Your task to perform on an android device: turn on sleep mode Image 0: 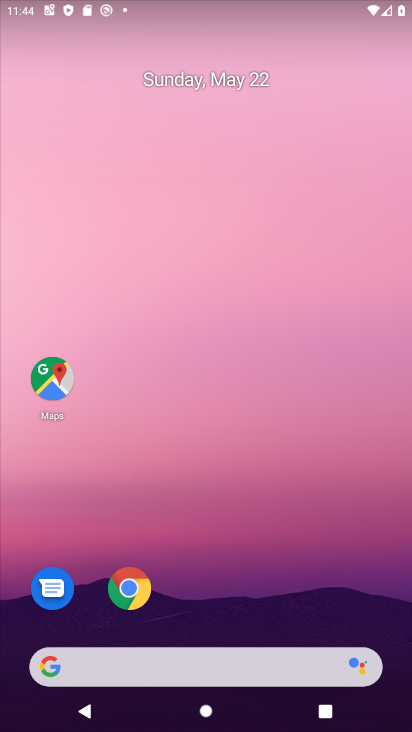
Step 0: drag from (259, 686) to (247, 17)
Your task to perform on an android device: turn on sleep mode Image 1: 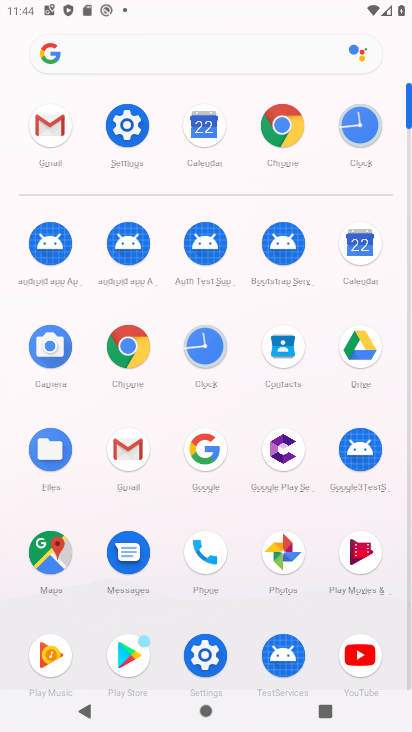
Step 1: click (133, 143)
Your task to perform on an android device: turn on sleep mode Image 2: 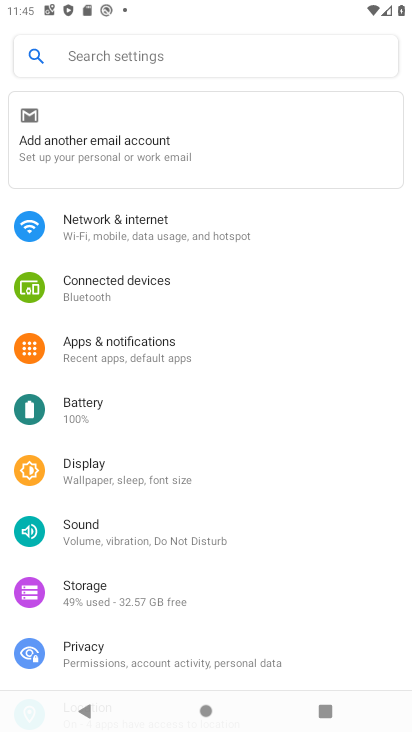
Step 2: click (126, 59)
Your task to perform on an android device: turn on sleep mode Image 3: 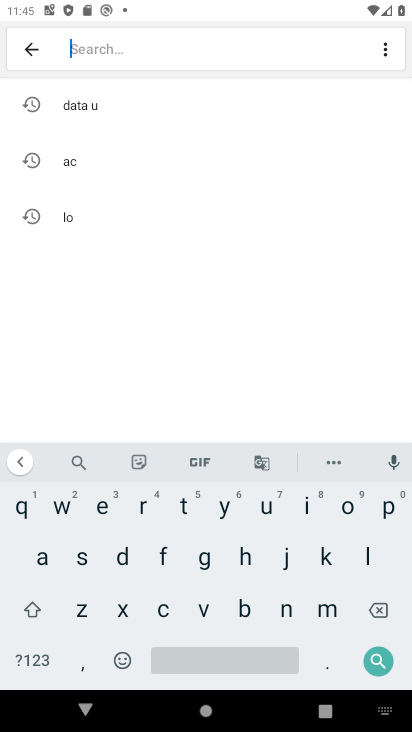
Step 3: click (82, 556)
Your task to perform on an android device: turn on sleep mode Image 4: 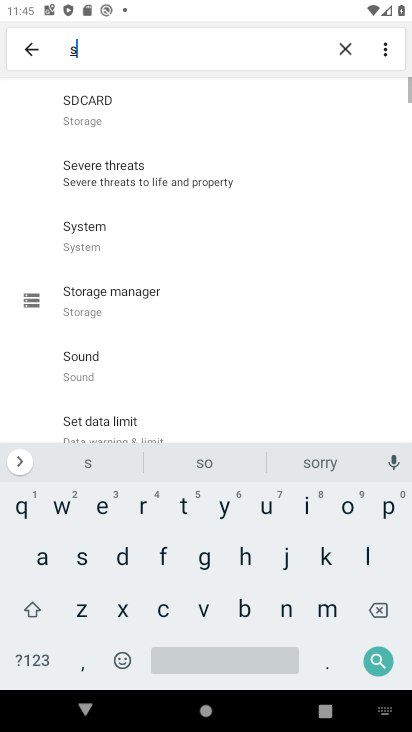
Step 4: click (371, 553)
Your task to perform on an android device: turn on sleep mode Image 5: 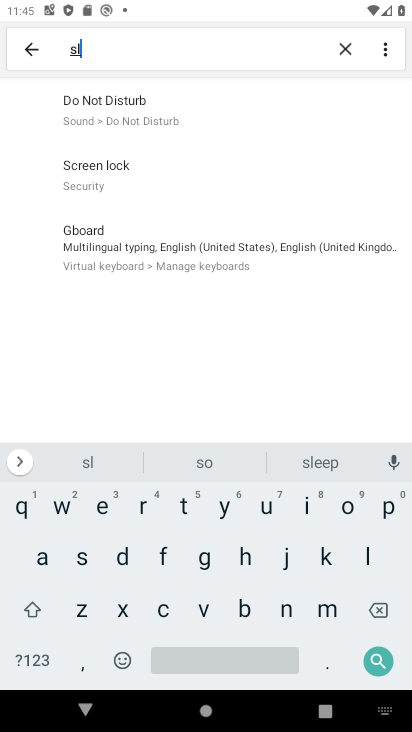
Step 5: click (151, 96)
Your task to perform on an android device: turn on sleep mode Image 6: 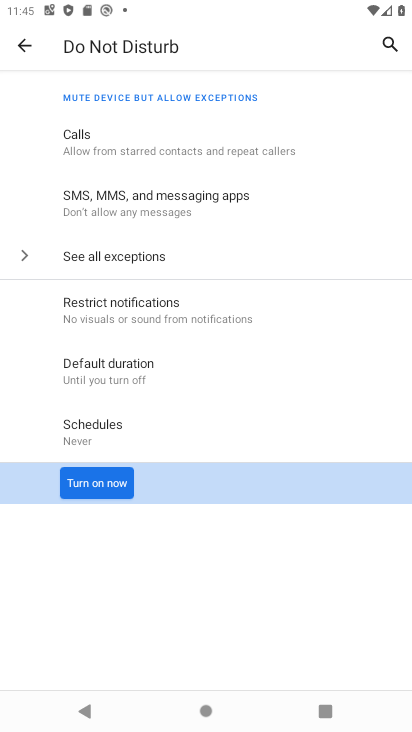
Step 6: click (103, 490)
Your task to perform on an android device: turn on sleep mode Image 7: 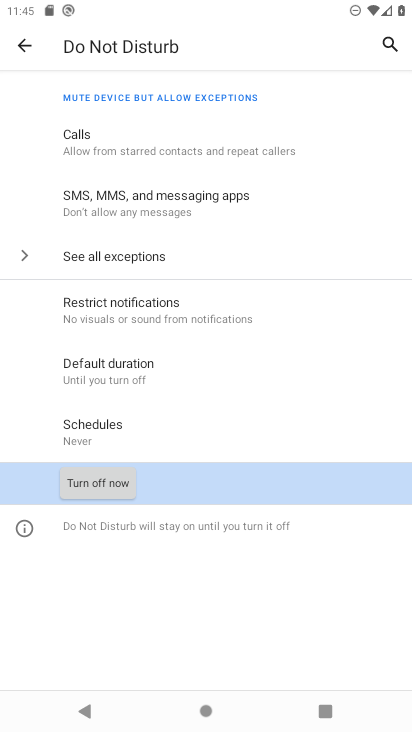
Step 7: task complete